Your task to perform on an android device: Go to sound settings Image 0: 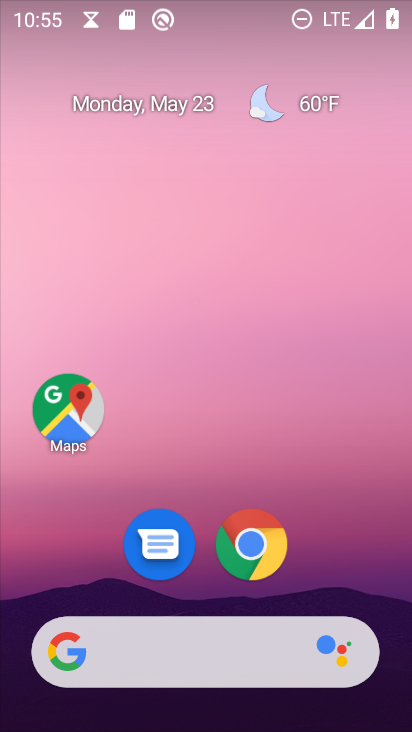
Step 0: drag from (330, 521) to (286, 300)
Your task to perform on an android device: Go to sound settings Image 1: 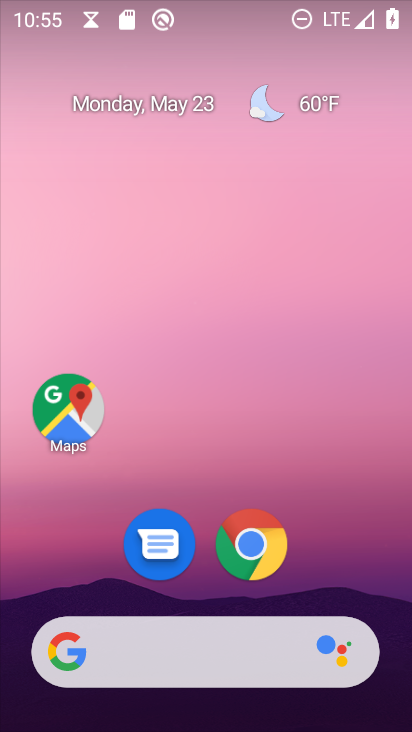
Step 1: drag from (313, 510) to (271, 52)
Your task to perform on an android device: Go to sound settings Image 2: 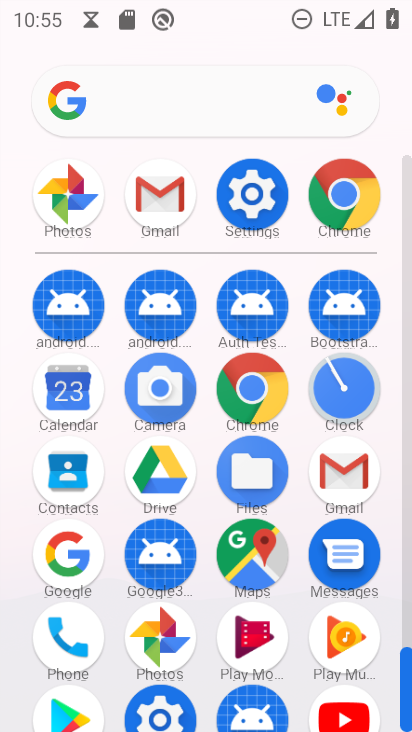
Step 2: click (241, 224)
Your task to perform on an android device: Go to sound settings Image 3: 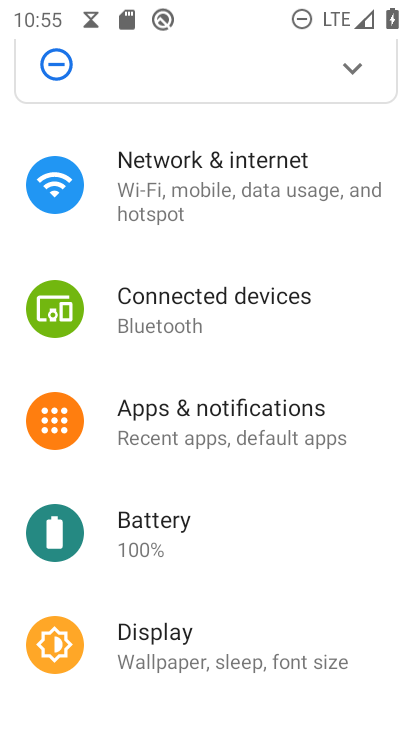
Step 3: drag from (184, 668) to (171, 355)
Your task to perform on an android device: Go to sound settings Image 4: 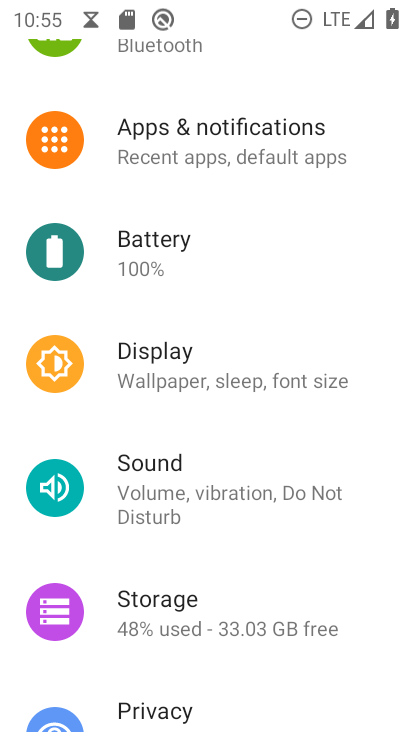
Step 4: click (145, 479)
Your task to perform on an android device: Go to sound settings Image 5: 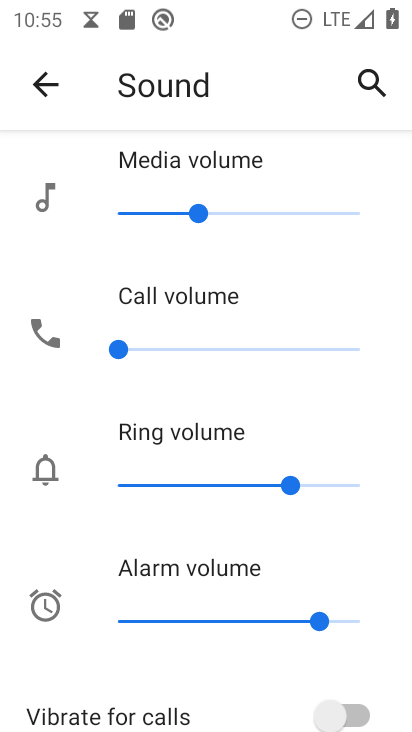
Step 5: task complete